Your task to perform on an android device: turn off location history Image 0: 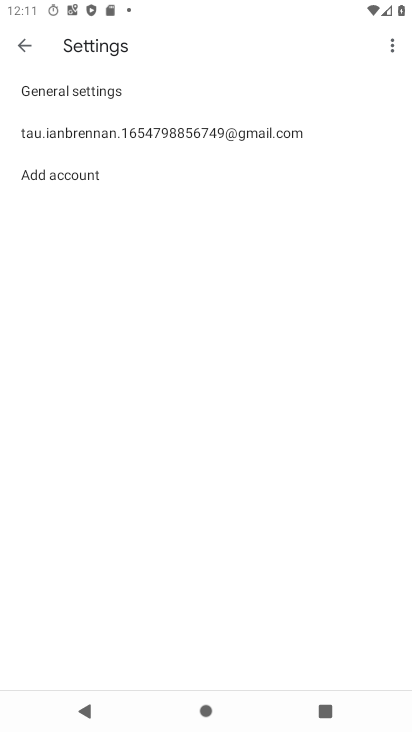
Step 0: press home button
Your task to perform on an android device: turn off location history Image 1: 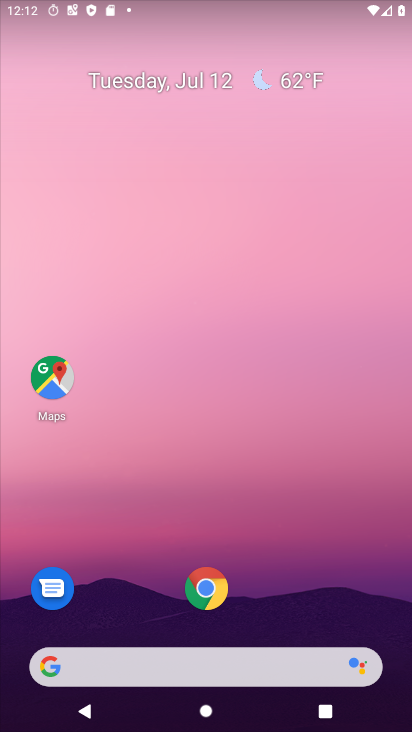
Step 1: drag from (244, 629) to (236, 28)
Your task to perform on an android device: turn off location history Image 2: 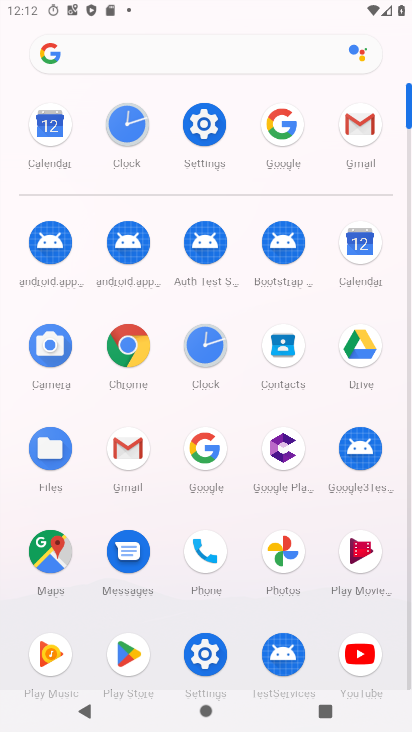
Step 2: click (200, 121)
Your task to perform on an android device: turn off location history Image 3: 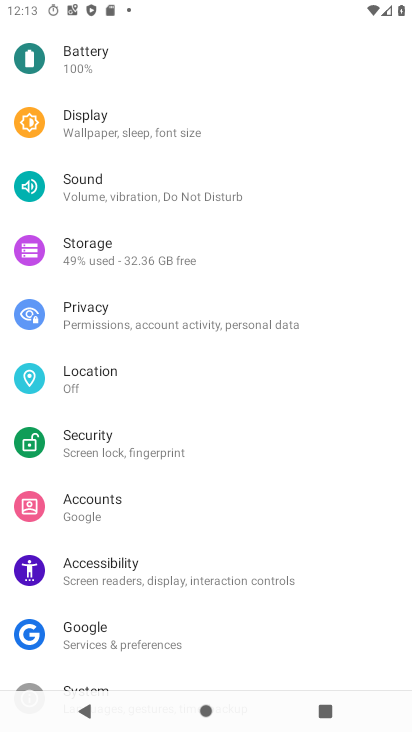
Step 3: click (98, 381)
Your task to perform on an android device: turn off location history Image 4: 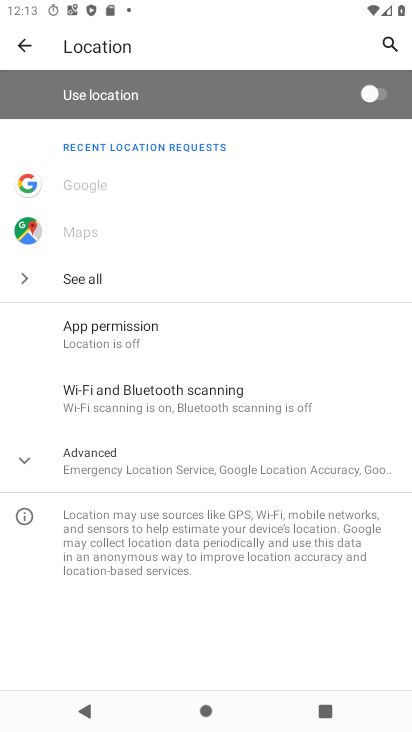
Step 4: click (139, 465)
Your task to perform on an android device: turn off location history Image 5: 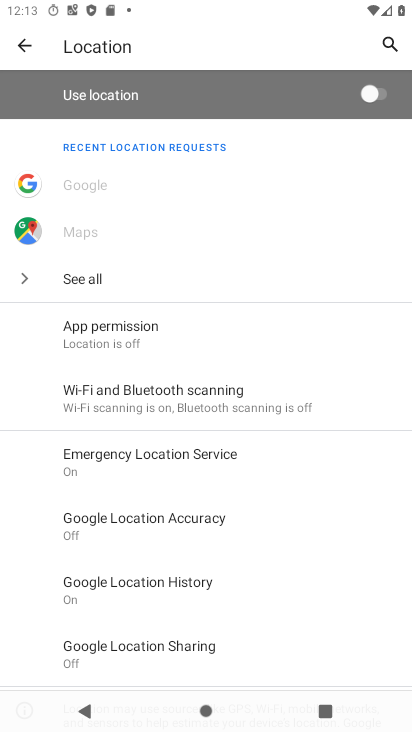
Step 5: click (134, 577)
Your task to perform on an android device: turn off location history Image 6: 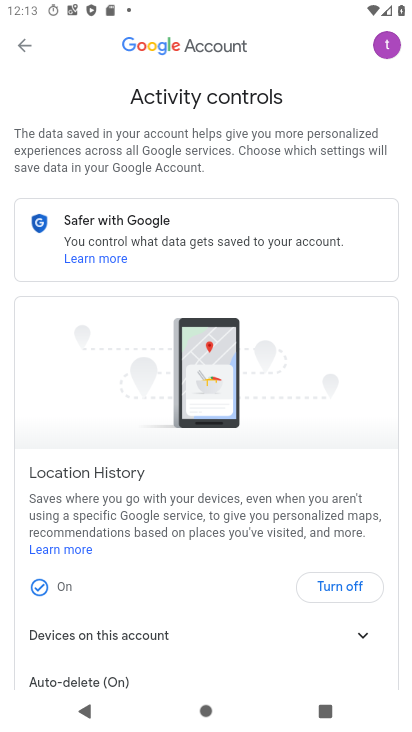
Step 6: click (330, 584)
Your task to perform on an android device: turn off location history Image 7: 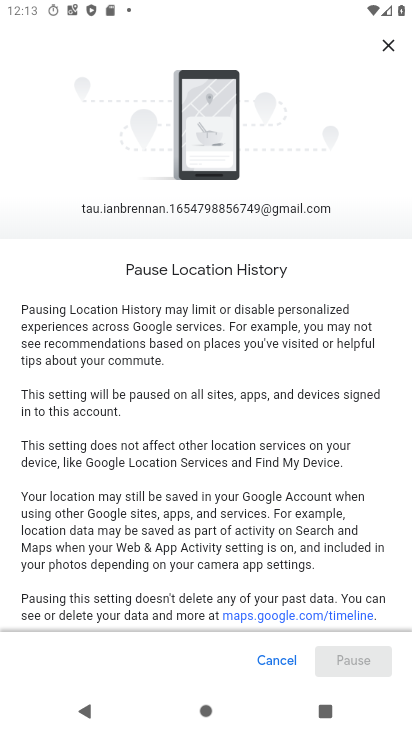
Step 7: drag from (317, 409) to (317, 168)
Your task to perform on an android device: turn off location history Image 8: 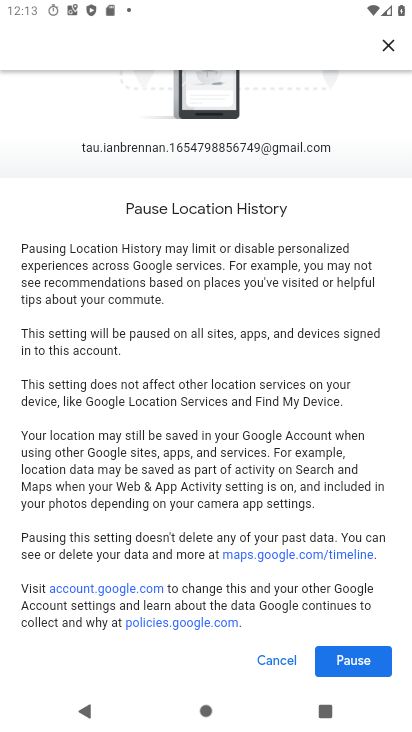
Step 8: click (368, 675)
Your task to perform on an android device: turn off location history Image 9: 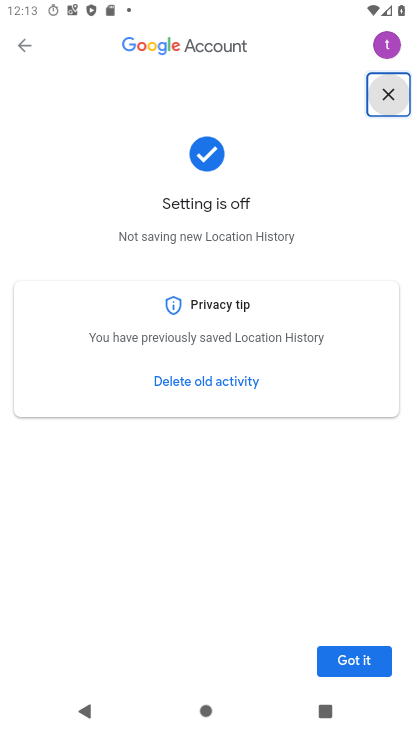
Step 9: click (368, 675)
Your task to perform on an android device: turn off location history Image 10: 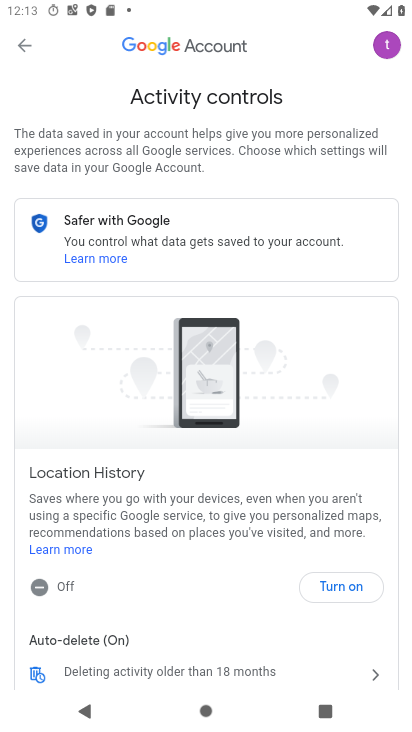
Step 10: task complete